Your task to perform on an android device: Open notification settings Image 0: 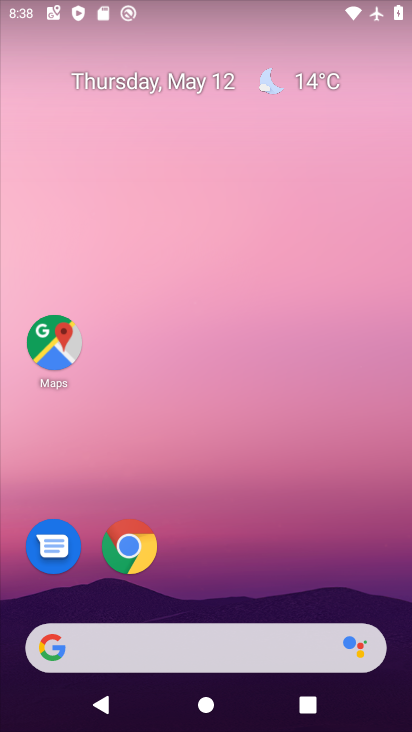
Step 0: drag from (139, 641) to (351, 409)
Your task to perform on an android device: Open notification settings Image 1: 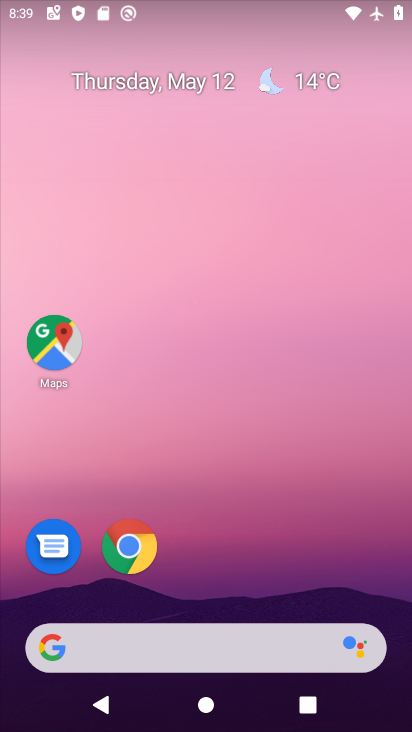
Step 1: drag from (244, 651) to (375, 197)
Your task to perform on an android device: Open notification settings Image 2: 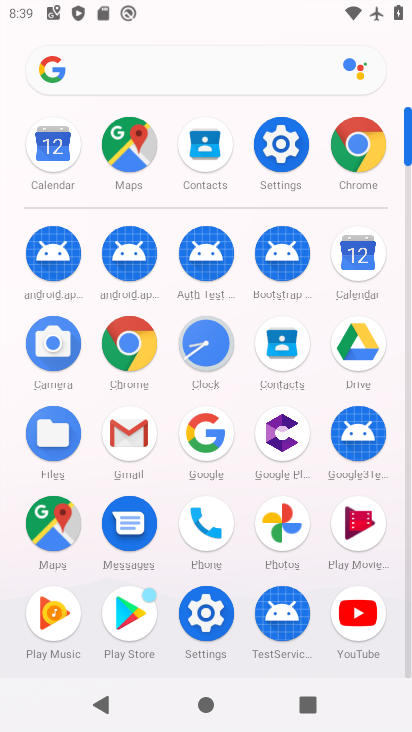
Step 2: click (271, 154)
Your task to perform on an android device: Open notification settings Image 3: 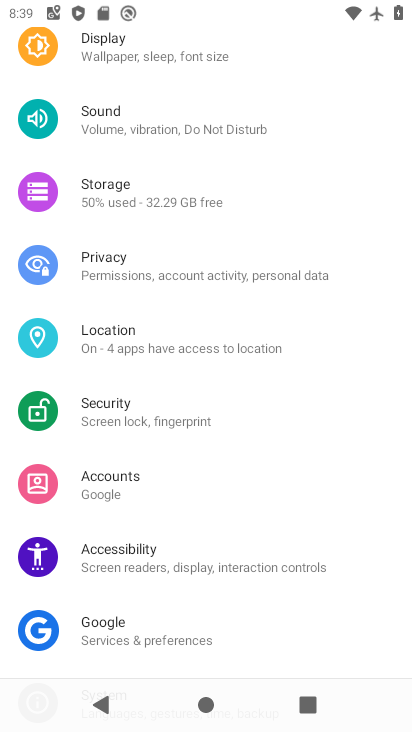
Step 3: drag from (316, 112) to (273, 448)
Your task to perform on an android device: Open notification settings Image 4: 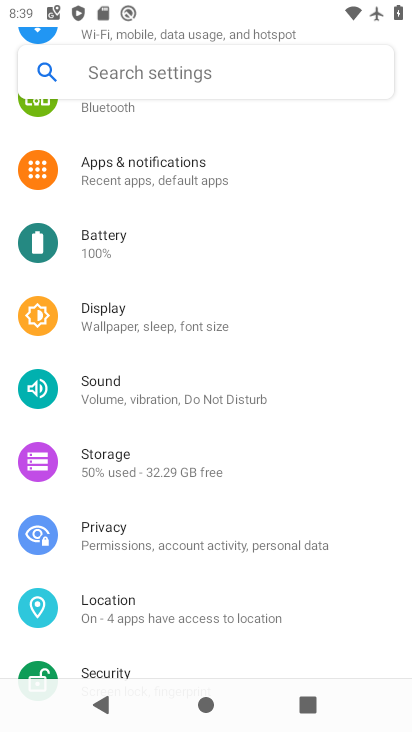
Step 4: click (168, 171)
Your task to perform on an android device: Open notification settings Image 5: 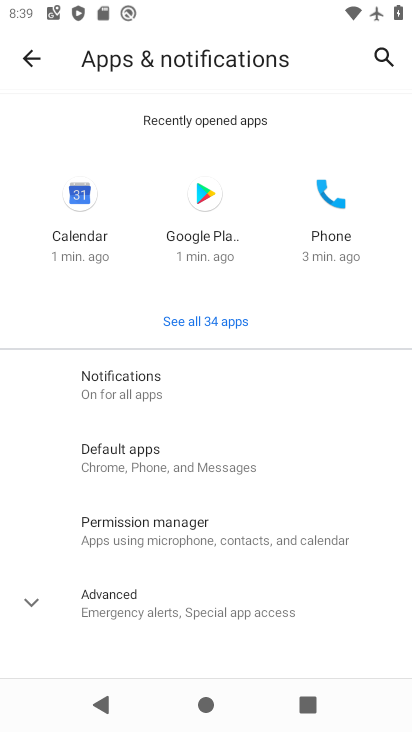
Step 5: click (128, 386)
Your task to perform on an android device: Open notification settings Image 6: 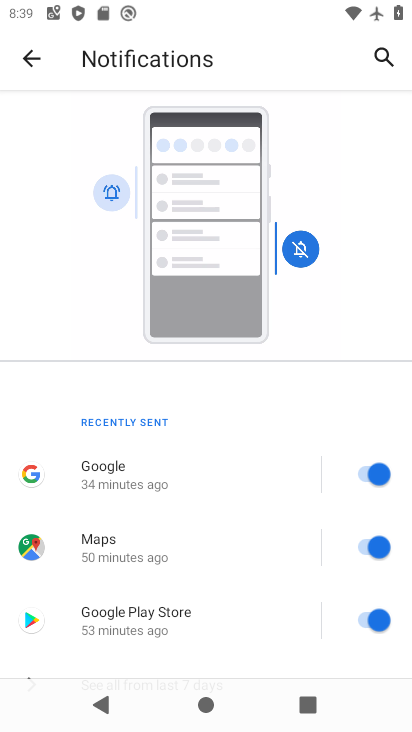
Step 6: task complete